Your task to perform on an android device: turn off priority inbox in the gmail app Image 0: 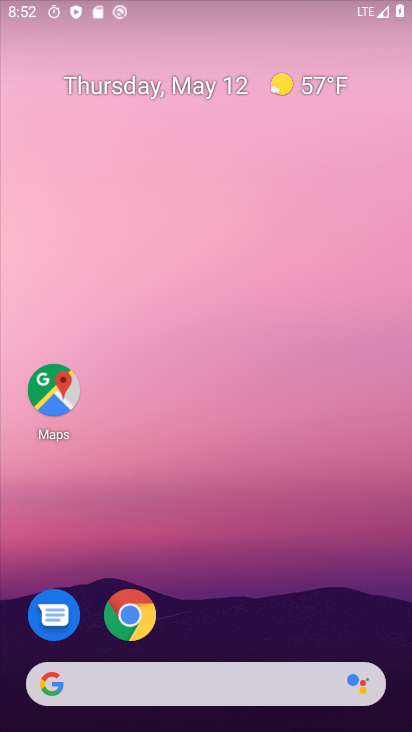
Step 0: drag from (260, 435) to (243, 15)
Your task to perform on an android device: turn off priority inbox in the gmail app Image 1: 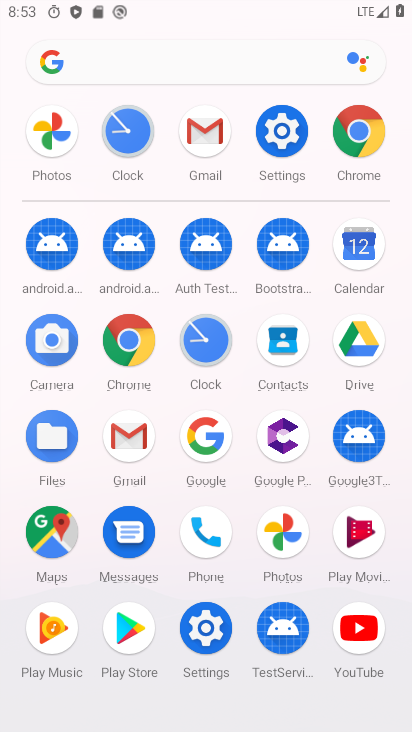
Step 1: click (128, 429)
Your task to perform on an android device: turn off priority inbox in the gmail app Image 2: 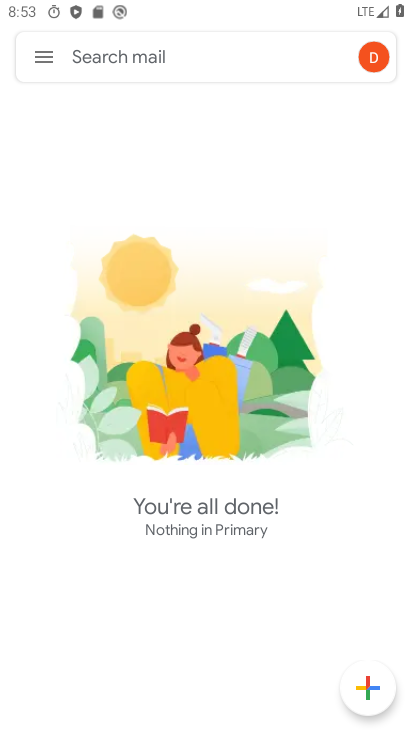
Step 2: click (43, 39)
Your task to perform on an android device: turn off priority inbox in the gmail app Image 3: 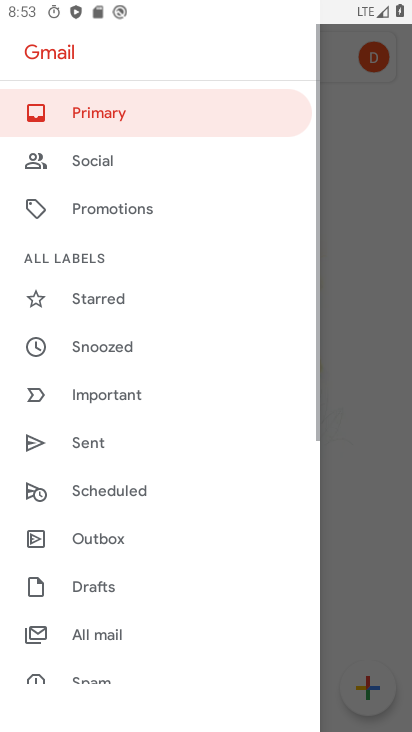
Step 3: drag from (201, 581) to (248, 136)
Your task to perform on an android device: turn off priority inbox in the gmail app Image 4: 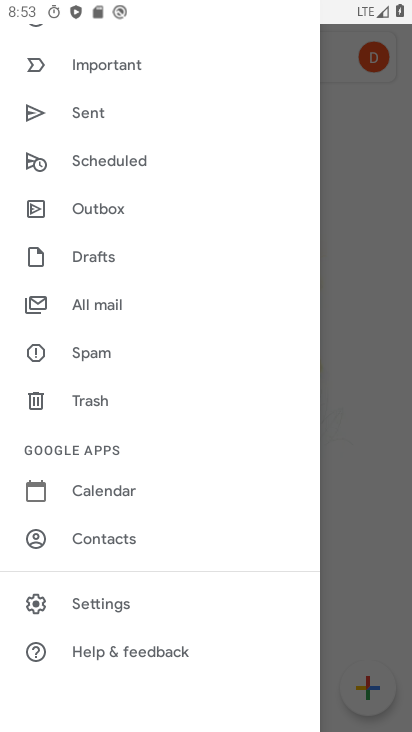
Step 4: click (89, 596)
Your task to perform on an android device: turn off priority inbox in the gmail app Image 5: 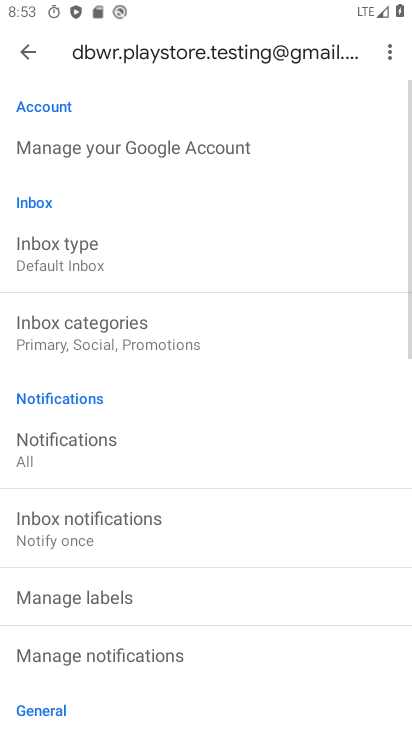
Step 5: drag from (252, 550) to (278, 143)
Your task to perform on an android device: turn off priority inbox in the gmail app Image 6: 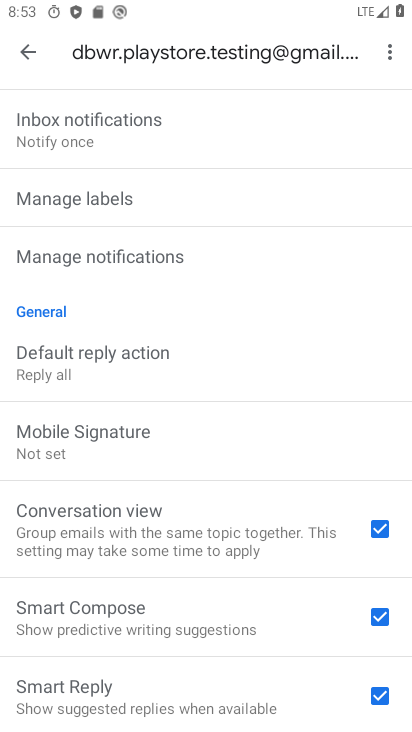
Step 6: drag from (220, 192) to (219, 597)
Your task to perform on an android device: turn off priority inbox in the gmail app Image 7: 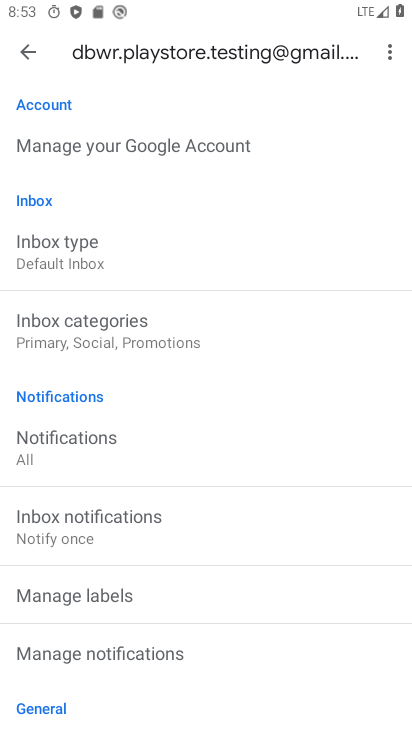
Step 7: click (101, 258)
Your task to perform on an android device: turn off priority inbox in the gmail app Image 8: 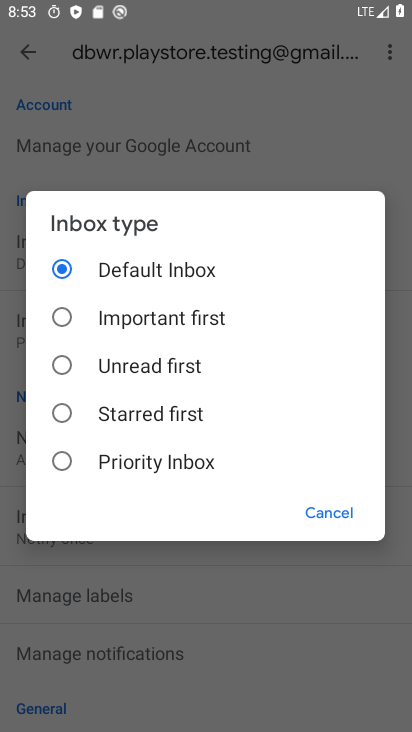
Step 8: click (123, 459)
Your task to perform on an android device: turn off priority inbox in the gmail app Image 9: 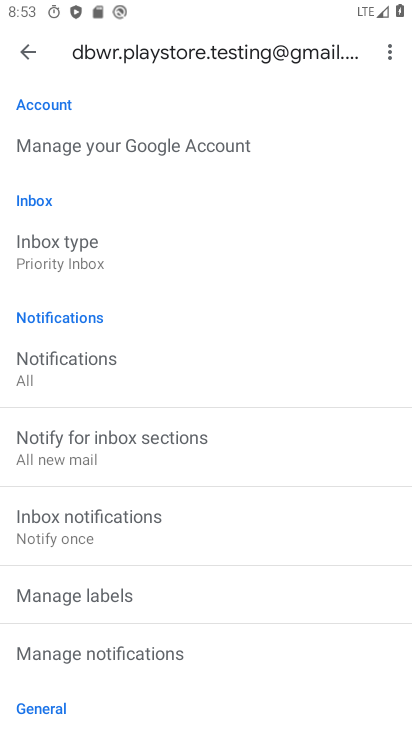
Step 9: task complete